Your task to perform on an android device: Search for "asus zenbook" on amazon, select the first entry, add it to the cart, then select checkout. Image 0: 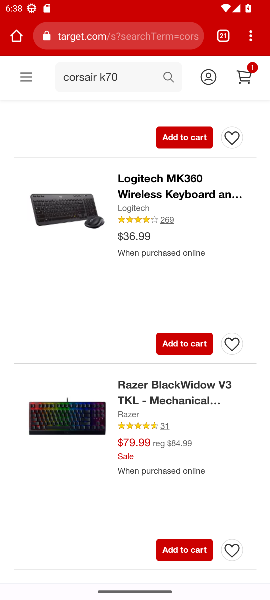
Step 0: press home button
Your task to perform on an android device: Search for "asus zenbook" on amazon, select the first entry, add it to the cart, then select checkout. Image 1: 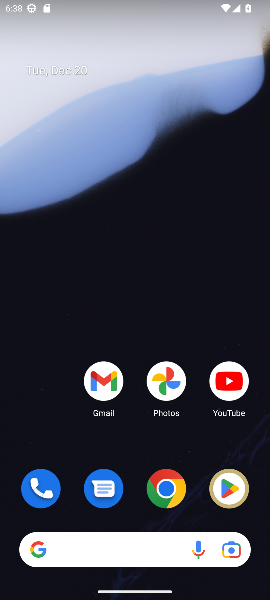
Step 1: drag from (48, 445) to (48, 78)
Your task to perform on an android device: Search for "asus zenbook" on amazon, select the first entry, add it to the cart, then select checkout. Image 2: 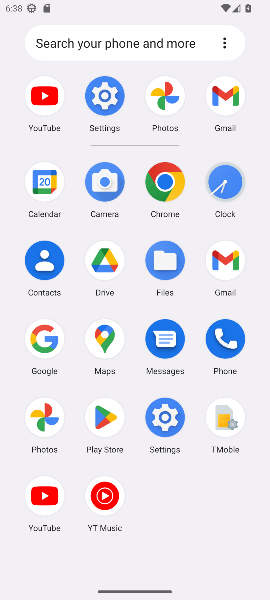
Step 2: click (45, 339)
Your task to perform on an android device: Search for "asus zenbook" on amazon, select the first entry, add it to the cart, then select checkout. Image 3: 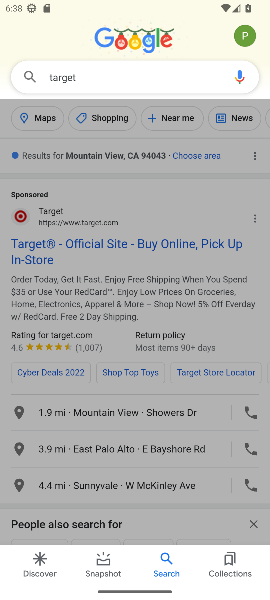
Step 3: click (156, 70)
Your task to perform on an android device: Search for "asus zenbook" on amazon, select the first entry, add it to the cart, then select checkout. Image 4: 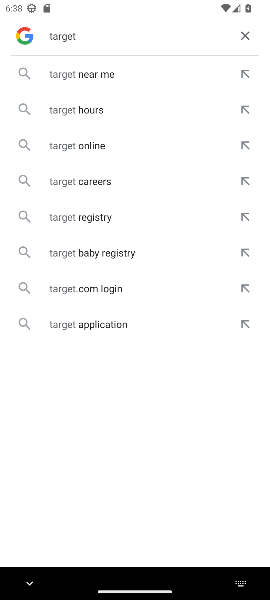
Step 4: click (246, 33)
Your task to perform on an android device: Search for "asus zenbook" on amazon, select the first entry, add it to the cart, then select checkout. Image 5: 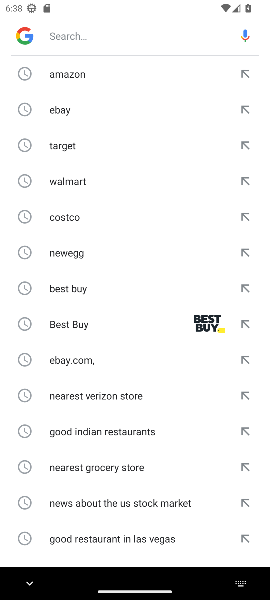
Step 5: type "amazon"
Your task to perform on an android device: Search for "asus zenbook" on amazon, select the first entry, add it to the cart, then select checkout. Image 6: 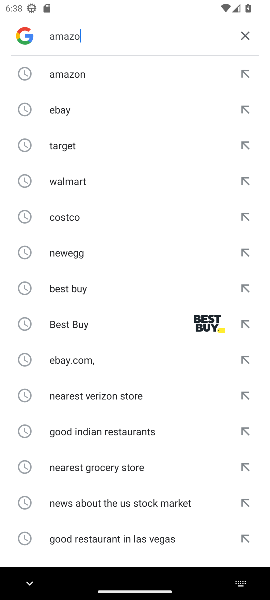
Step 6: press enter
Your task to perform on an android device: Search for "asus zenbook" on amazon, select the first entry, add it to the cart, then select checkout. Image 7: 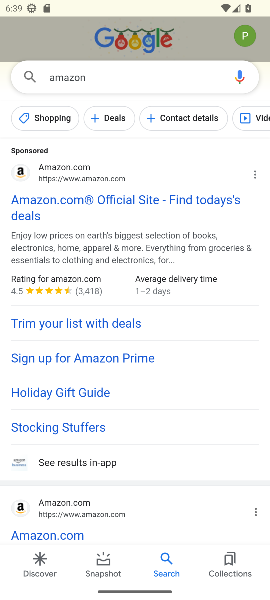
Step 7: click (101, 198)
Your task to perform on an android device: Search for "asus zenbook" on amazon, select the first entry, add it to the cart, then select checkout. Image 8: 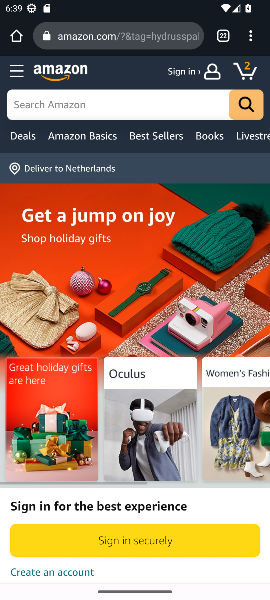
Step 8: click (100, 106)
Your task to perform on an android device: Search for "asus zenbook" on amazon, select the first entry, add it to the cart, then select checkout. Image 9: 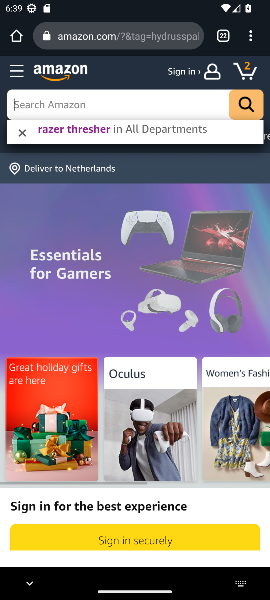
Step 9: type "asus zenbook"
Your task to perform on an android device: Search for "asus zenbook" on amazon, select the first entry, add it to the cart, then select checkout. Image 10: 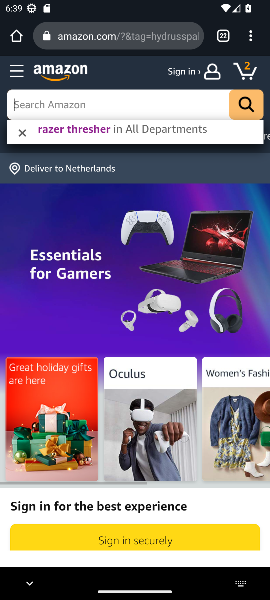
Step 10: press enter
Your task to perform on an android device: Search for "asus zenbook" on amazon, select the first entry, add it to the cart, then select checkout. Image 11: 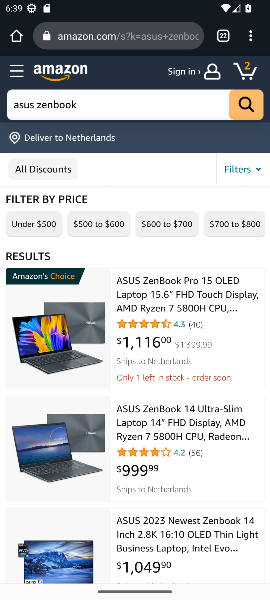
Step 11: click (169, 296)
Your task to perform on an android device: Search for "asus zenbook" on amazon, select the first entry, add it to the cart, then select checkout. Image 12: 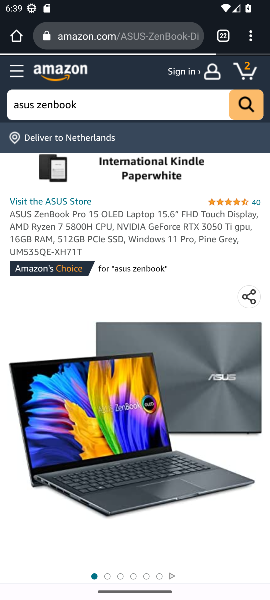
Step 12: drag from (162, 501) to (143, 219)
Your task to perform on an android device: Search for "asus zenbook" on amazon, select the first entry, add it to the cart, then select checkout. Image 13: 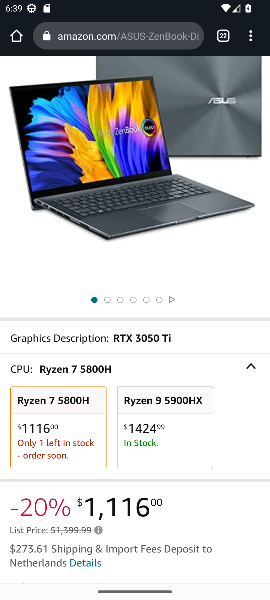
Step 13: drag from (139, 542) to (124, 182)
Your task to perform on an android device: Search for "asus zenbook" on amazon, select the first entry, add it to the cart, then select checkout. Image 14: 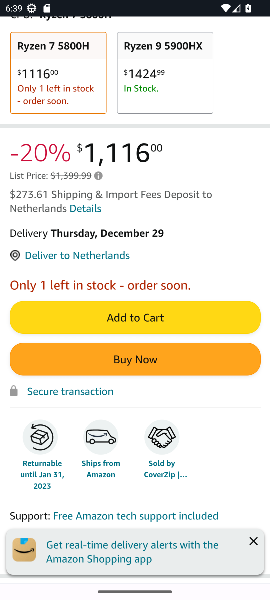
Step 14: click (138, 314)
Your task to perform on an android device: Search for "asus zenbook" on amazon, select the first entry, add it to the cart, then select checkout. Image 15: 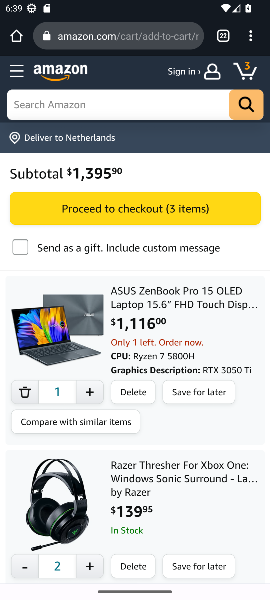
Step 15: click (110, 203)
Your task to perform on an android device: Search for "asus zenbook" on amazon, select the first entry, add it to the cart, then select checkout. Image 16: 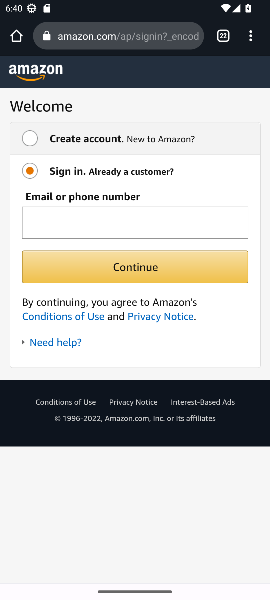
Step 16: task complete